Your task to perform on an android device: toggle sleep mode Image 0: 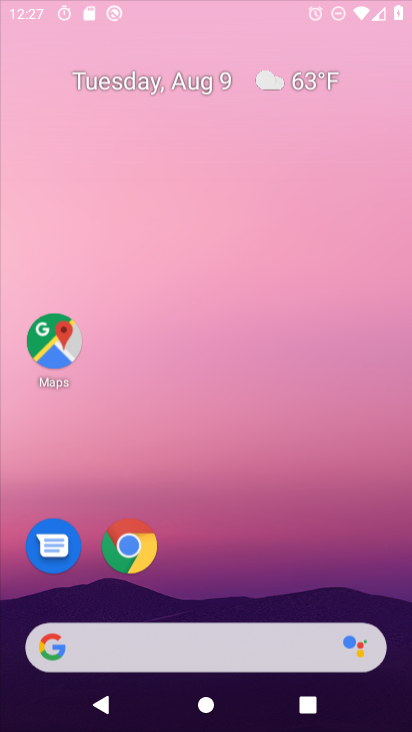
Step 0: press home button
Your task to perform on an android device: toggle sleep mode Image 1: 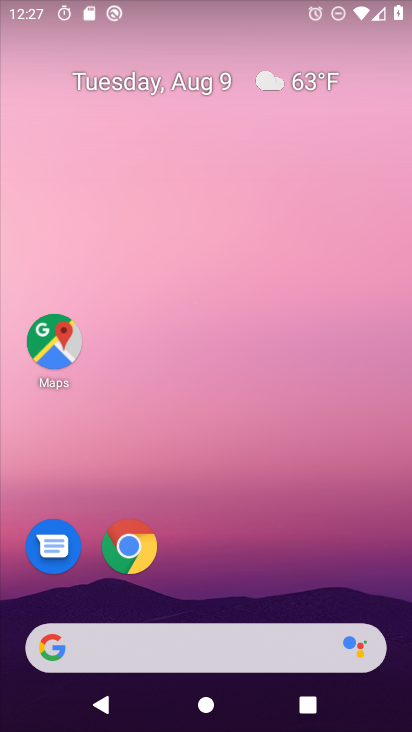
Step 1: drag from (225, 607) to (247, 15)
Your task to perform on an android device: toggle sleep mode Image 2: 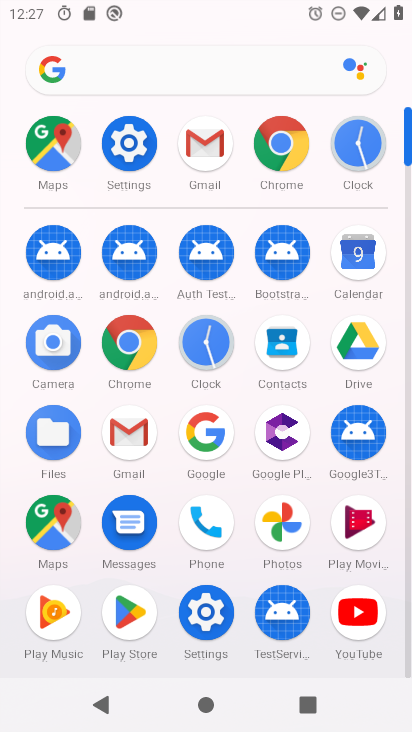
Step 2: click (204, 609)
Your task to perform on an android device: toggle sleep mode Image 3: 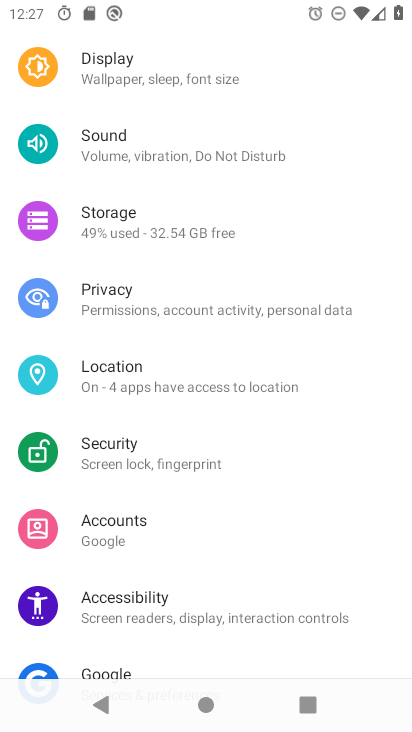
Step 3: click (163, 66)
Your task to perform on an android device: toggle sleep mode Image 4: 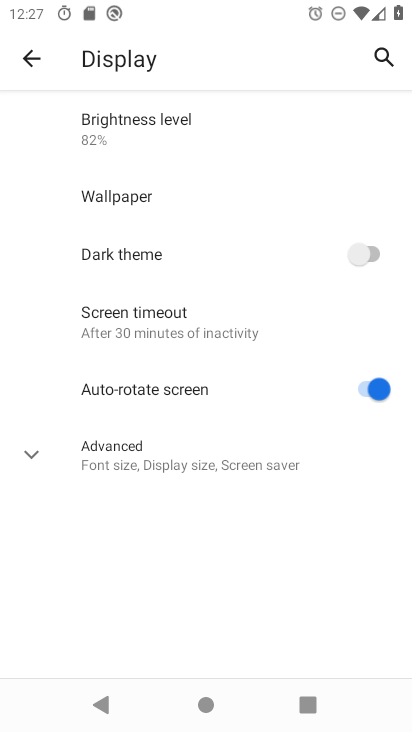
Step 4: click (33, 452)
Your task to perform on an android device: toggle sleep mode Image 5: 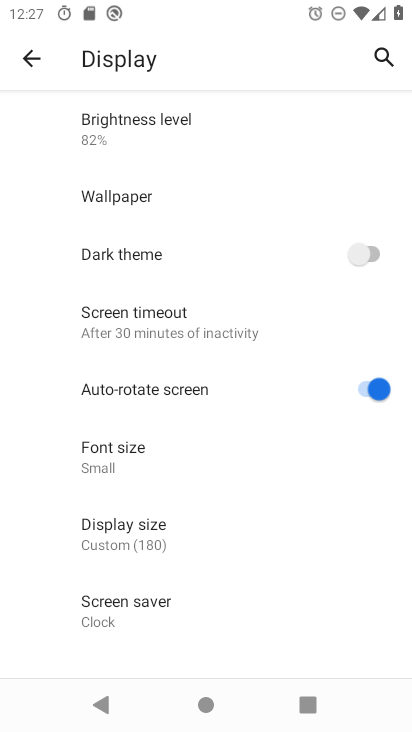
Step 5: task complete